Your task to perform on an android device: stop showing notifications on the lock screen Image 0: 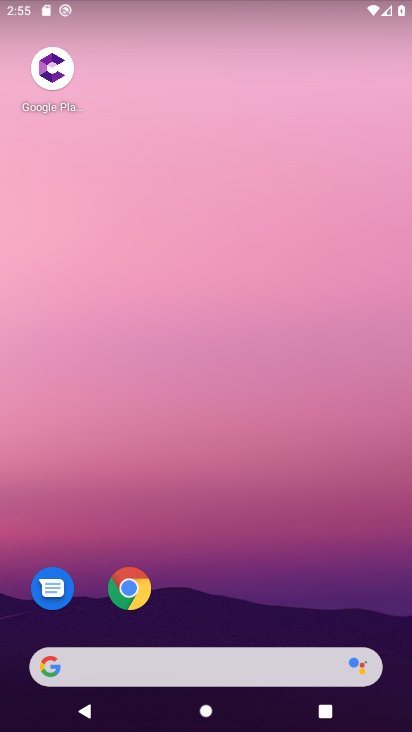
Step 0: drag from (235, 621) to (230, 200)
Your task to perform on an android device: stop showing notifications on the lock screen Image 1: 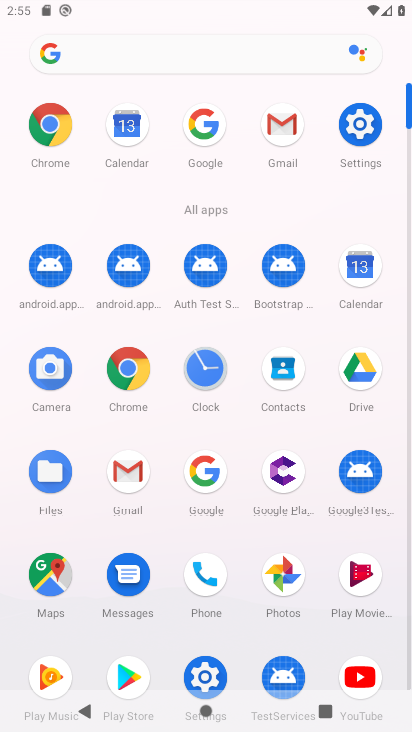
Step 1: click (353, 127)
Your task to perform on an android device: stop showing notifications on the lock screen Image 2: 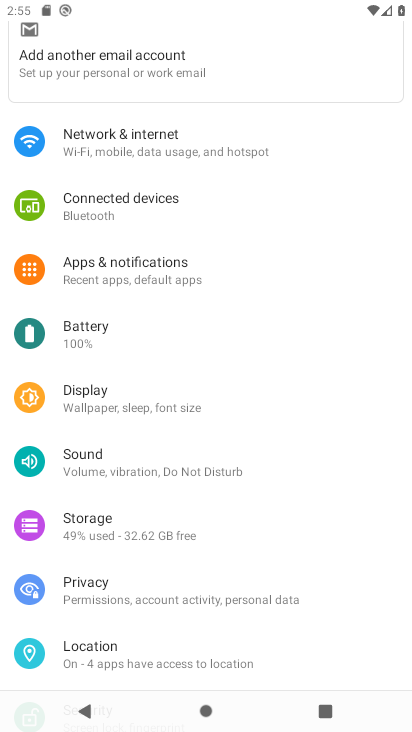
Step 2: click (111, 287)
Your task to perform on an android device: stop showing notifications on the lock screen Image 3: 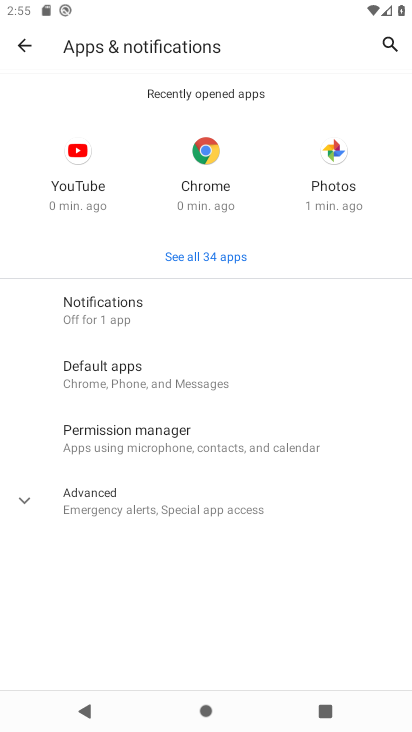
Step 3: click (149, 295)
Your task to perform on an android device: stop showing notifications on the lock screen Image 4: 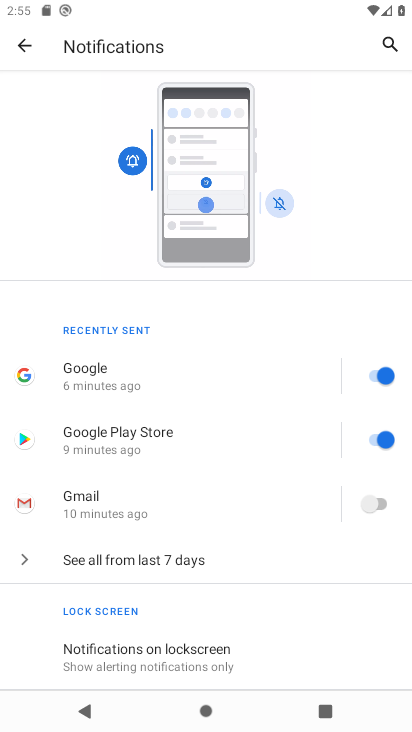
Step 4: click (243, 663)
Your task to perform on an android device: stop showing notifications on the lock screen Image 5: 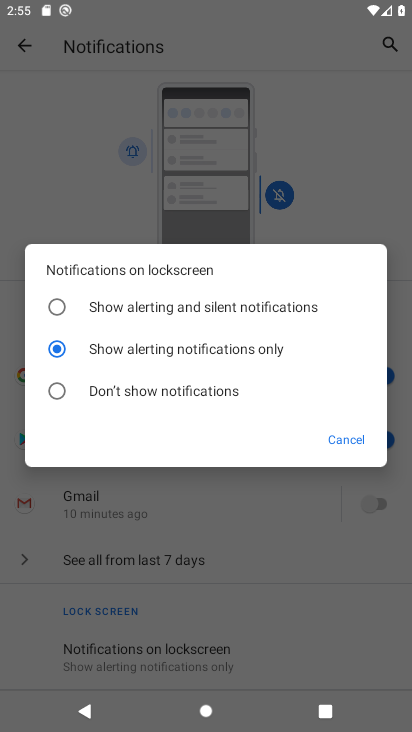
Step 5: click (150, 391)
Your task to perform on an android device: stop showing notifications on the lock screen Image 6: 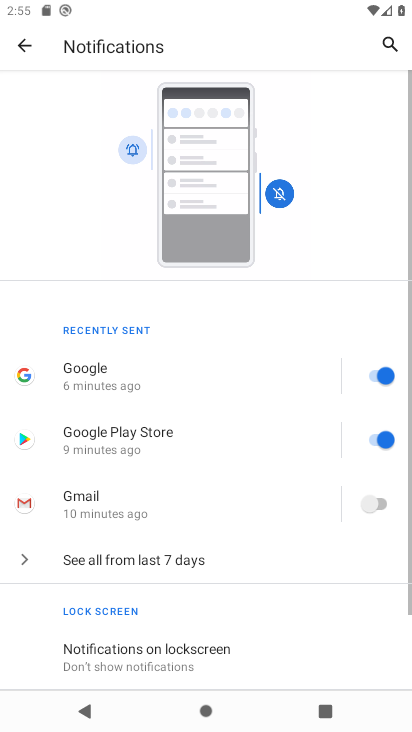
Step 6: task complete